Your task to perform on an android device: Show me productivity apps on the Play Store Image 0: 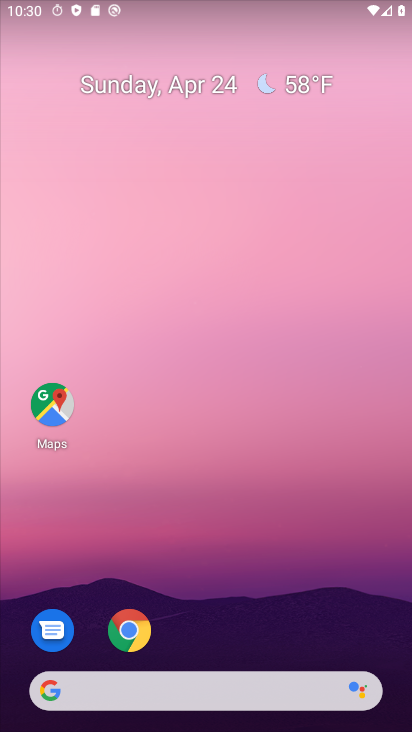
Step 0: drag from (253, 672) to (376, 291)
Your task to perform on an android device: Show me productivity apps on the Play Store Image 1: 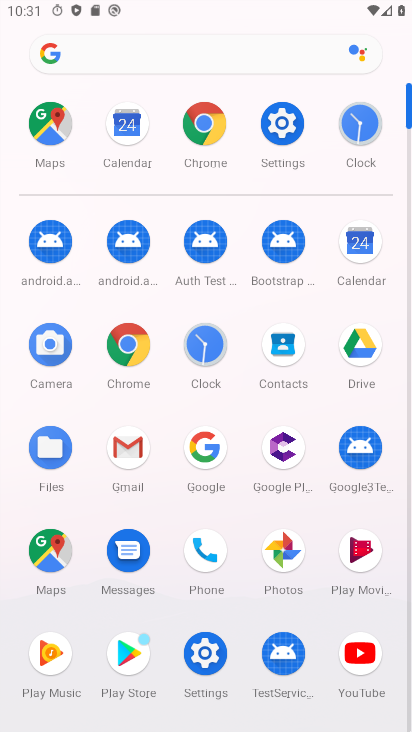
Step 1: drag from (236, 560) to (275, 376)
Your task to perform on an android device: Show me productivity apps on the Play Store Image 2: 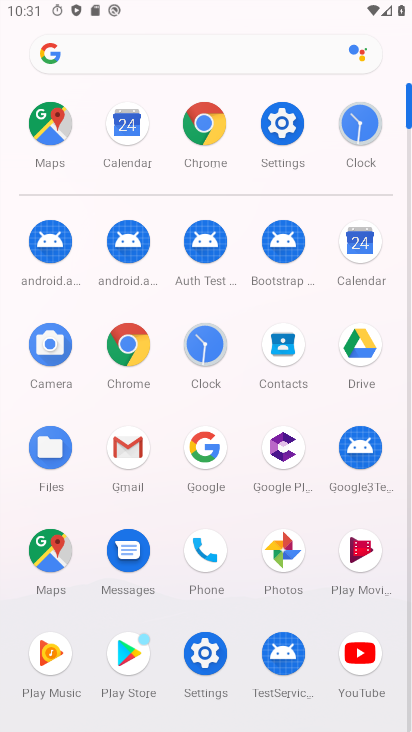
Step 2: click (140, 658)
Your task to perform on an android device: Show me productivity apps on the Play Store Image 3: 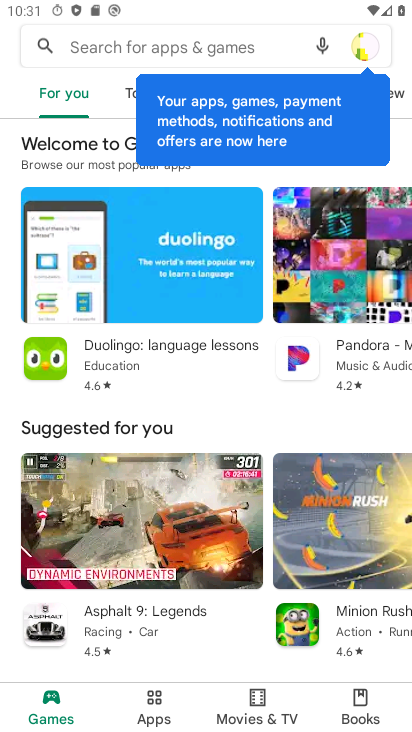
Step 3: click (142, 48)
Your task to perform on an android device: Show me productivity apps on the Play Store Image 4: 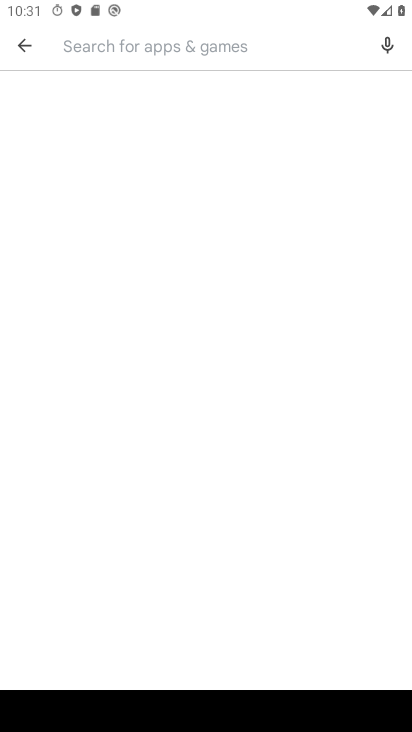
Step 4: type "productivity aaps"
Your task to perform on an android device: Show me productivity apps on the Play Store Image 5: 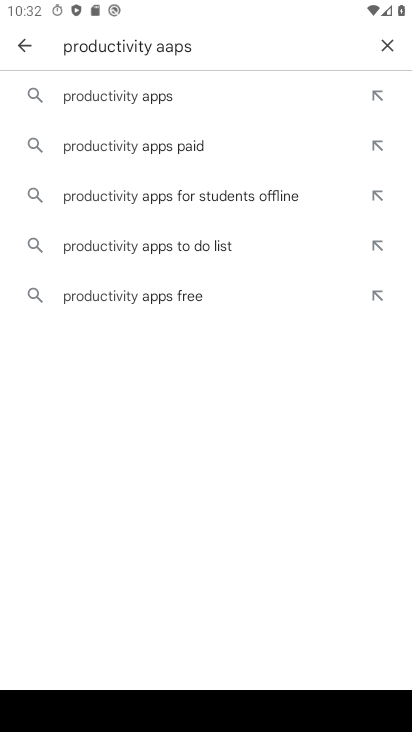
Step 5: click (196, 116)
Your task to perform on an android device: Show me productivity apps on the Play Store Image 6: 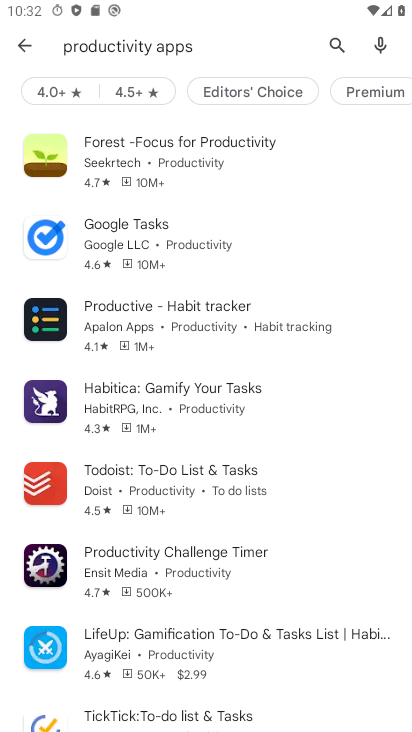
Step 6: task complete